Your task to perform on an android device: Open the calendar and show me this week's events? Image 0: 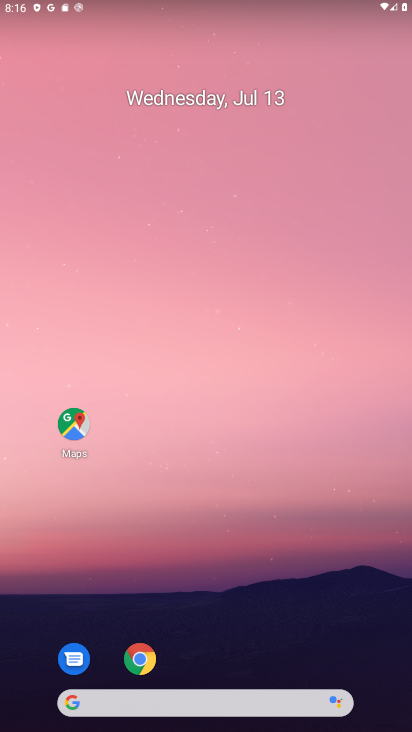
Step 0: drag from (317, 654) to (374, 54)
Your task to perform on an android device: Open the calendar and show me this week's events? Image 1: 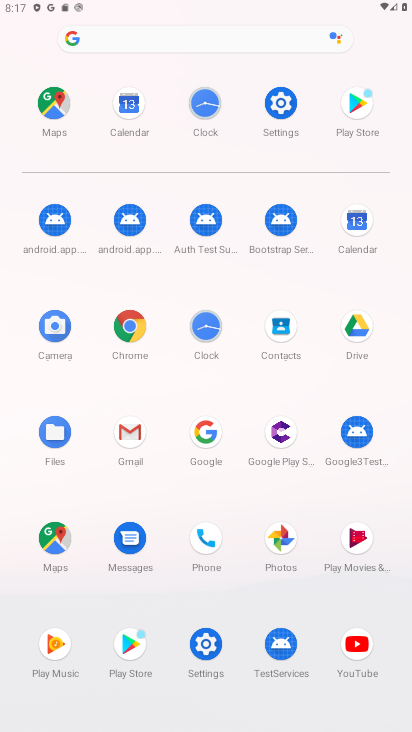
Step 1: click (134, 111)
Your task to perform on an android device: Open the calendar and show me this week's events? Image 2: 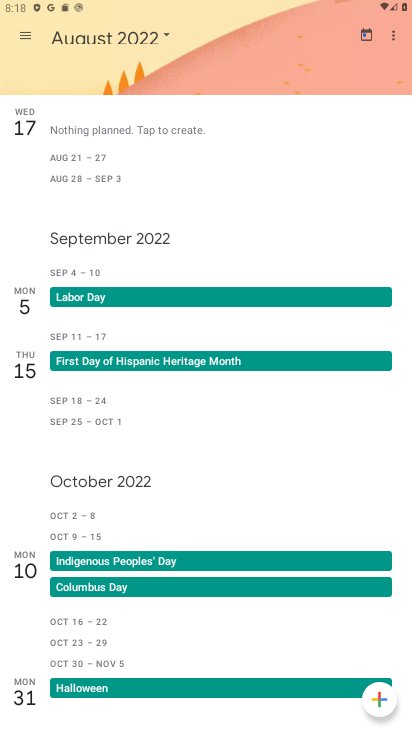
Step 2: task complete